Your task to perform on an android device: Show me popular videos on Youtube Image 0: 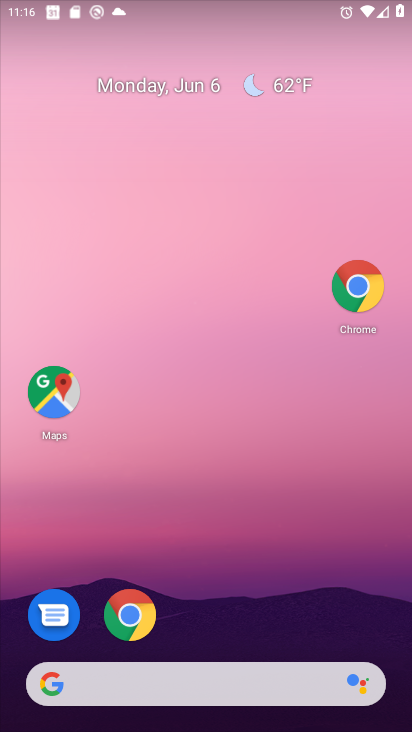
Step 0: drag from (241, 649) to (144, 157)
Your task to perform on an android device: Show me popular videos on Youtube Image 1: 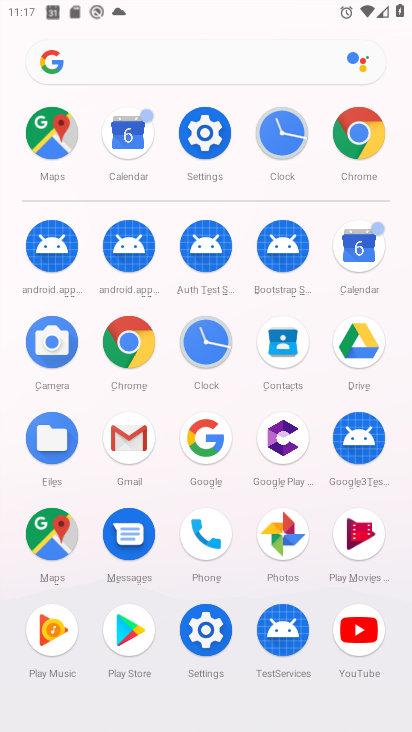
Step 1: click (366, 636)
Your task to perform on an android device: Show me popular videos on Youtube Image 2: 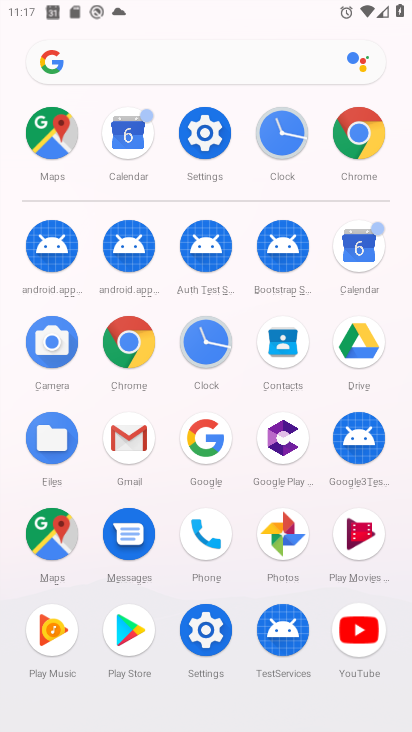
Step 2: click (366, 636)
Your task to perform on an android device: Show me popular videos on Youtube Image 3: 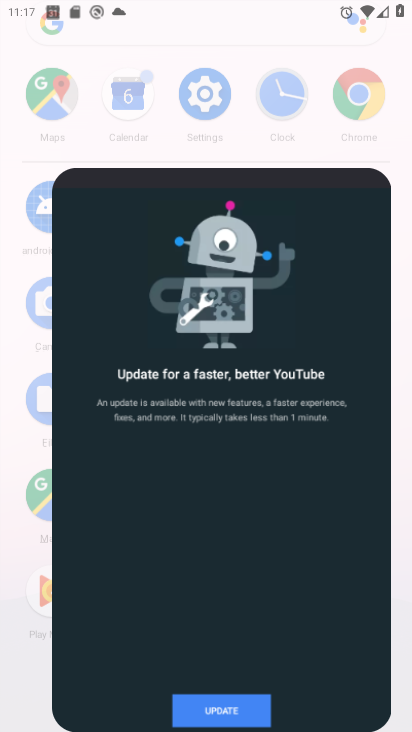
Step 3: click (363, 629)
Your task to perform on an android device: Show me popular videos on Youtube Image 4: 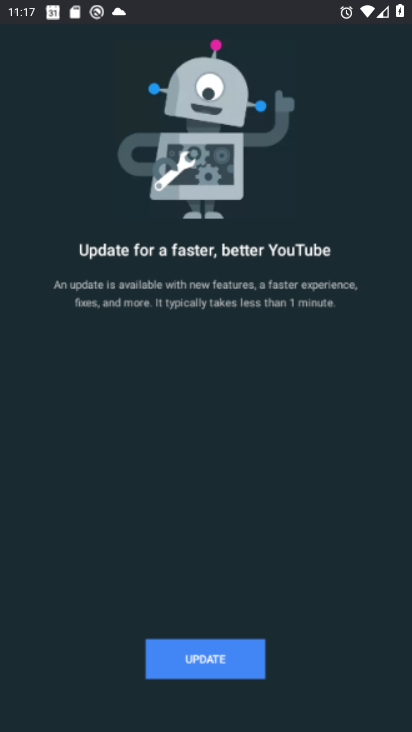
Step 4: click (359, 626)
Your task to perform on an android device: Show me popular videos on Youtube Image 5: 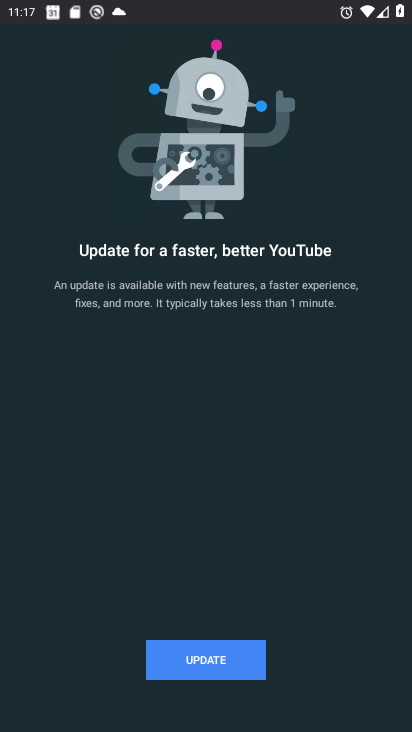
Step 5: click (217, 642)
Your task to perform on an android device: Show me popular videos on Youtube Image 6: 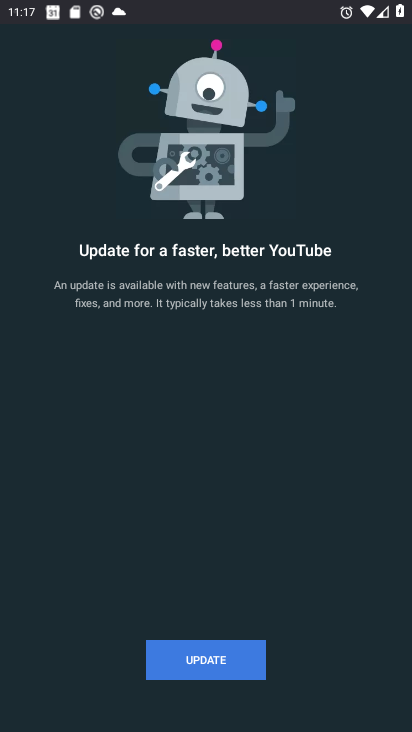
Step 6: click (215, 651)
Your task to perform on an android device: Show me popular videos on Youtube Image 7: 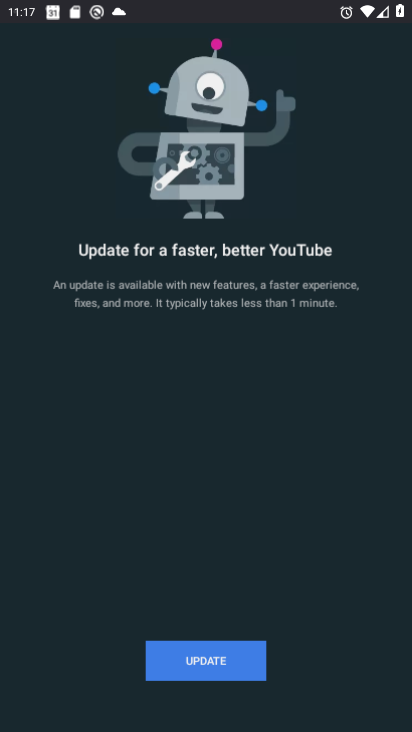
Step 7: click (210, 661)
Your task to perform on an android device: Show me popular videos on Youtube Image 8: 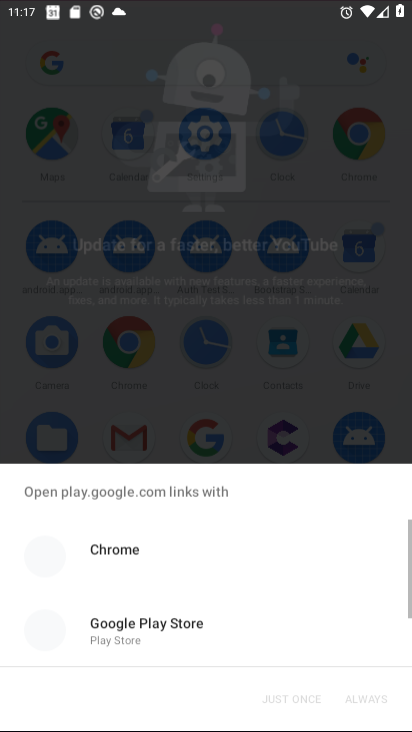
Step 8: click (210, 661)
Your task to perform on an android device: Show me popular videos on Youtube Image 9: 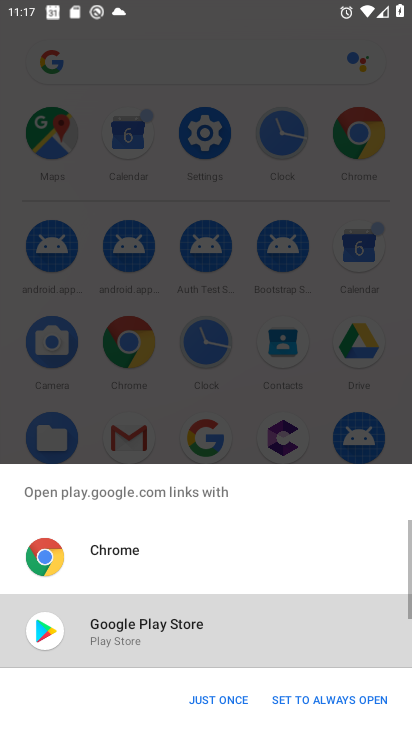
Step 9: click (213, 663)
Your task to perform on an android device: Show me popular videos on Youtube Image 10: 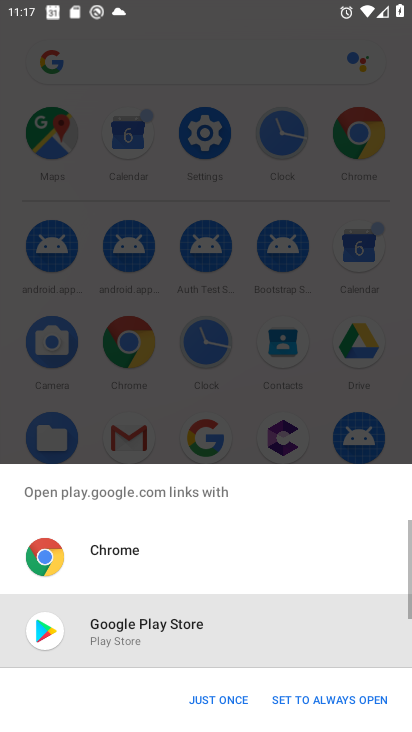
Step 10: click (147, 642)
Your task to perform on an android device: Show me popular videos on Youtube Image 11: 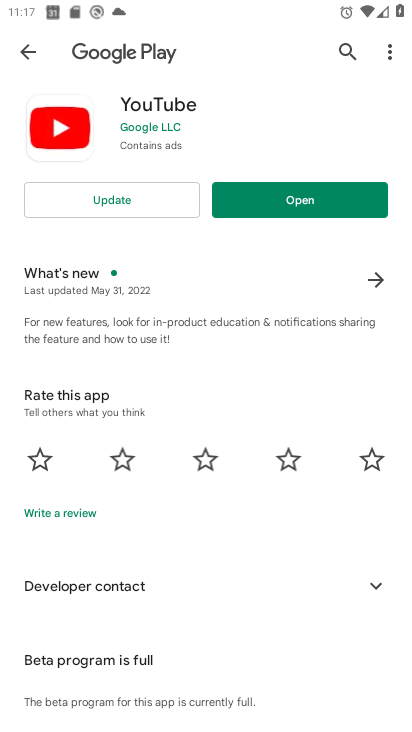
Step 11: click (105, 204)
Your task to perform on an android device: Show me popular videos on Youtube Image 12: 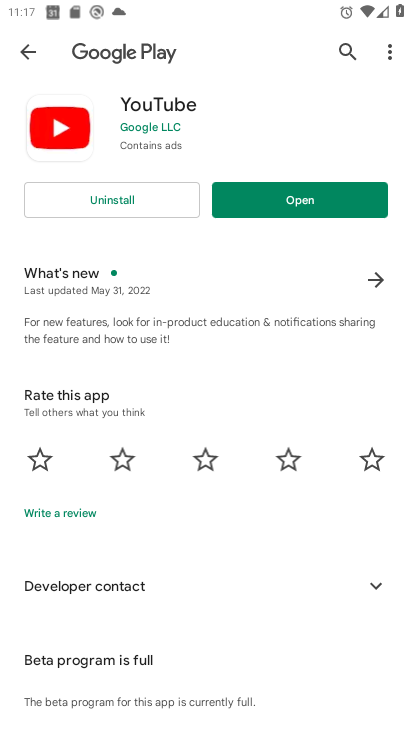
Step 12: click (326, 213)
Your task to perform on an android device: Show me popular videos on Youtube Image 13: 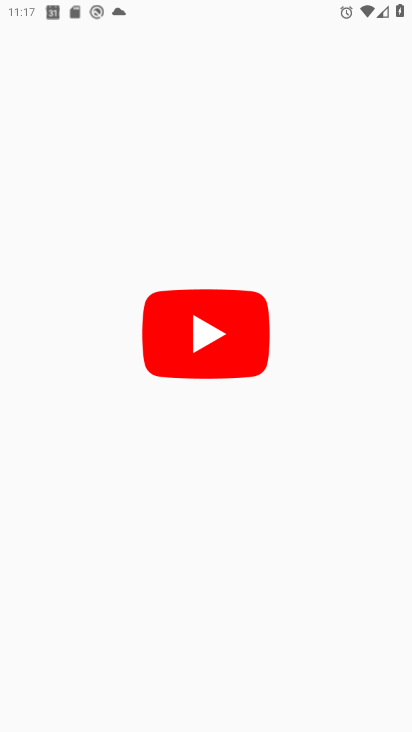
Step 13: click (323, 199)
Your task to perform on an android device: Show me popular videos on Youtube Image 14: 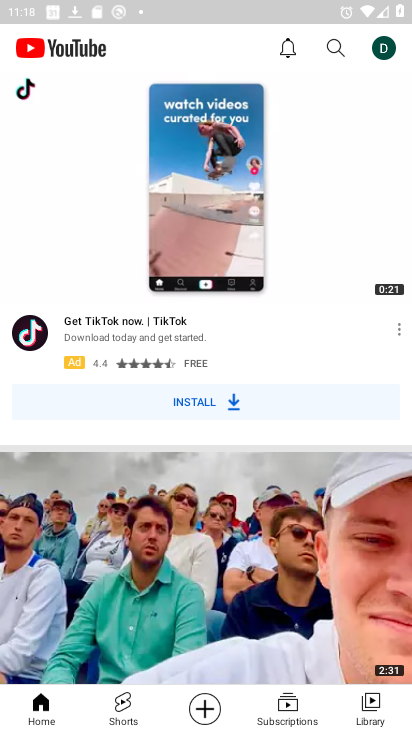
Step 14: drag from (278, 610) to (275, 331)
Your task to perform on an android device: Show me popular videos on Youtube Image 15: 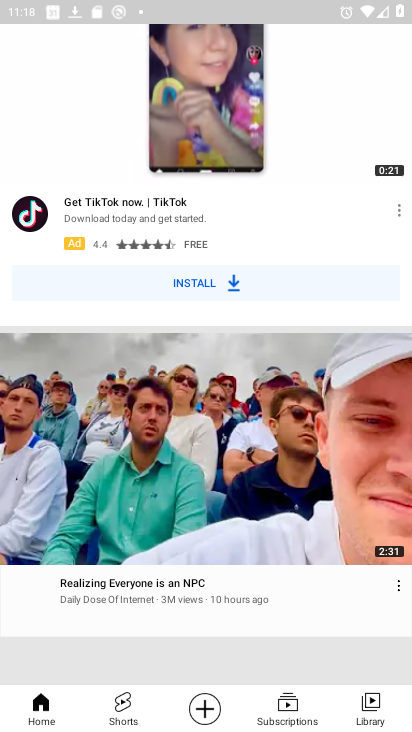
Step 15: click (158, 374)
Your task to perform on an android device: Show me popular videos on Youtube Image 16: 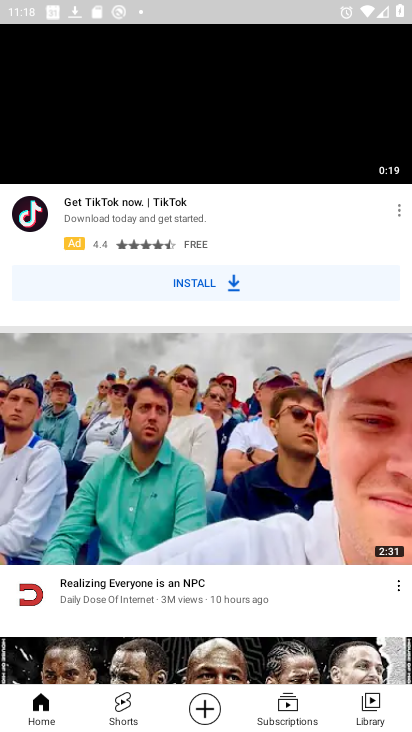
Step 16: task complete